Your task to perform on an android device: see tabs open on other devices in the chrome app Image 0: 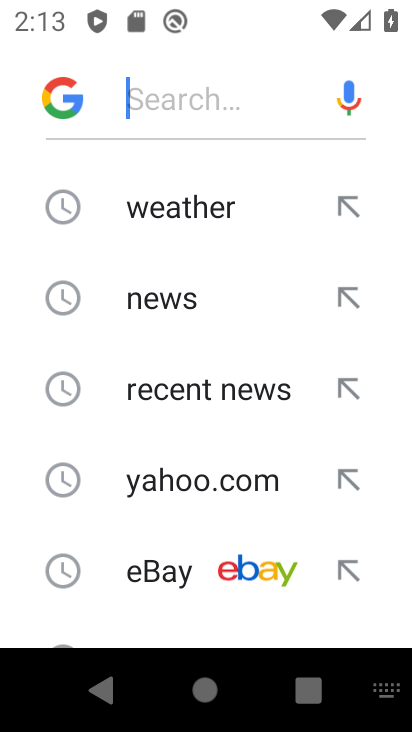
Step 0: press home button
Your task to perform on an android device: see tabs open on other devices in the chrome app Image 1: 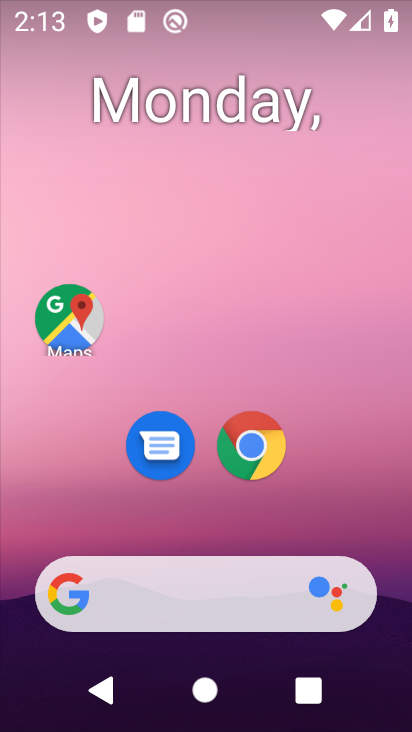
Step 1: click (248, 449)
Your task to perform on an android device: see tabs open on other devices in the chrome app Image 2: 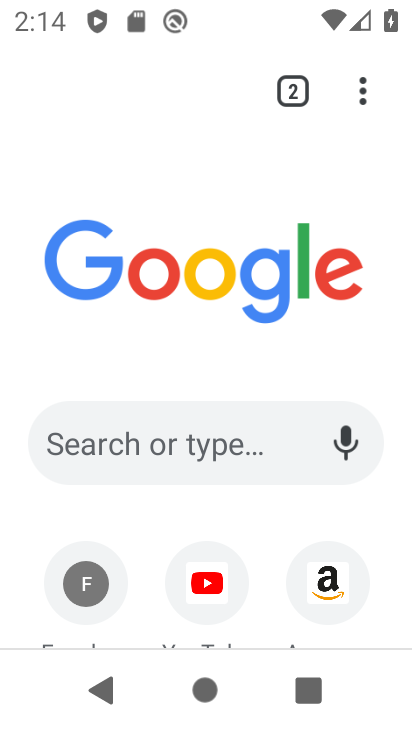
Step 2: click (379, 95)
Your task to perform on an android device: see tabs open on other devices in the chrome app Image 3: 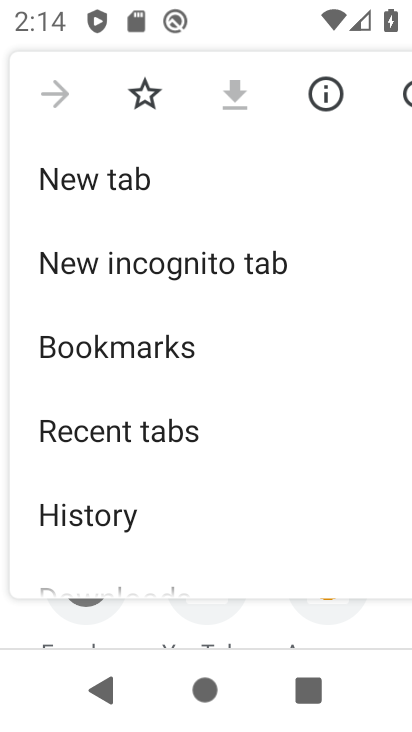
Step 3: drag from (163, 532) to (227, 240)
Your task to perform on an android device: see tabs open on other devices in the chrome app Image 4: 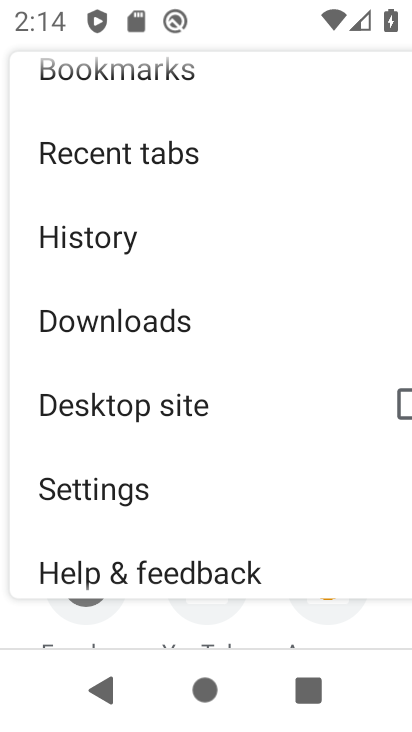
Step 4: click (168, 176)
Your task to perform on an android device: see tabs open on other devices in the chrome app Image 5: 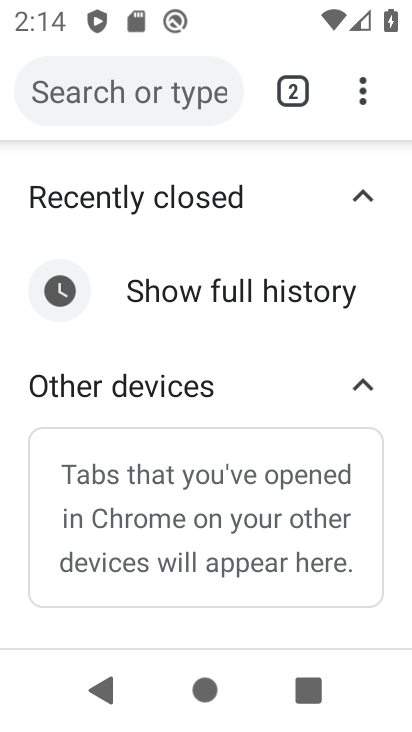
Step 5: task complete